Your task to perform on an android device: Go to display settings Image 0: 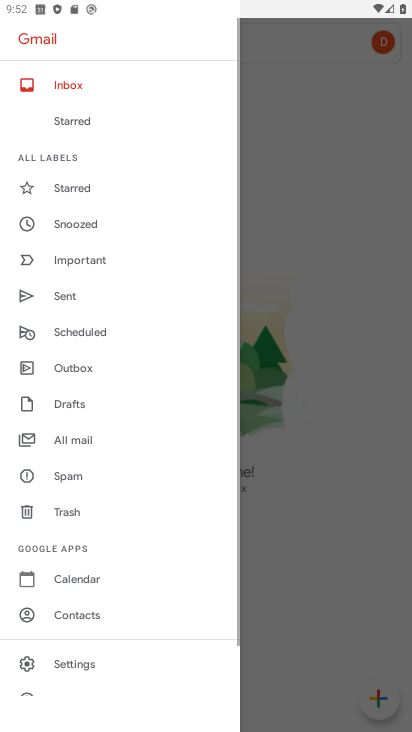
Step 0: drag from (141, 672) to (200, 320)
Your task to perform on an android device: Go to display settings Image 1: 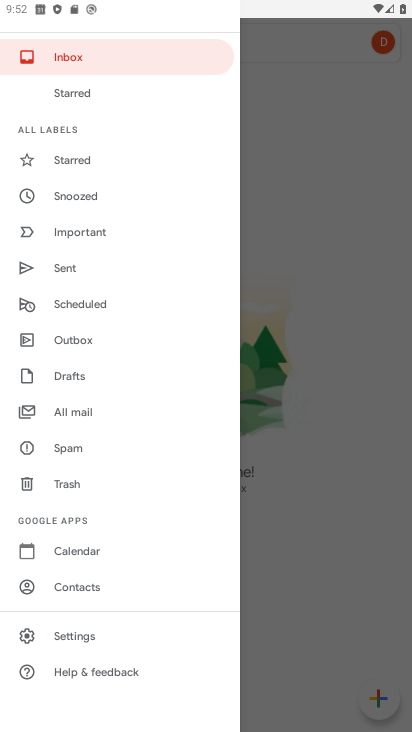
Step 1: press home button
Your task to perform on an android device: Go to display settings Image 2: 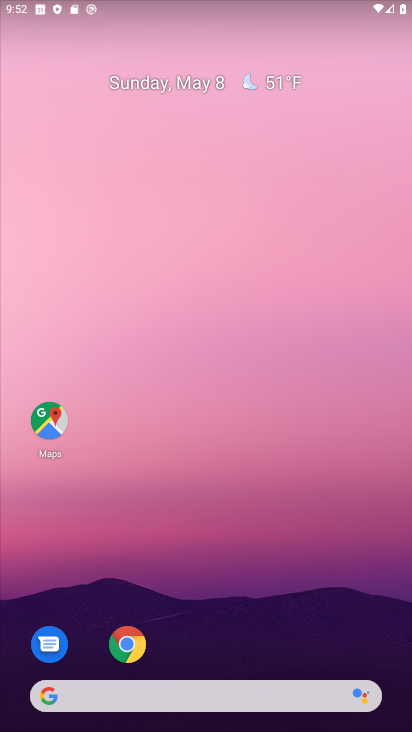
Step 2: drag from (193, 639) to (228, 319)
Your task to perform on an android device: Go to display settings Image 3: 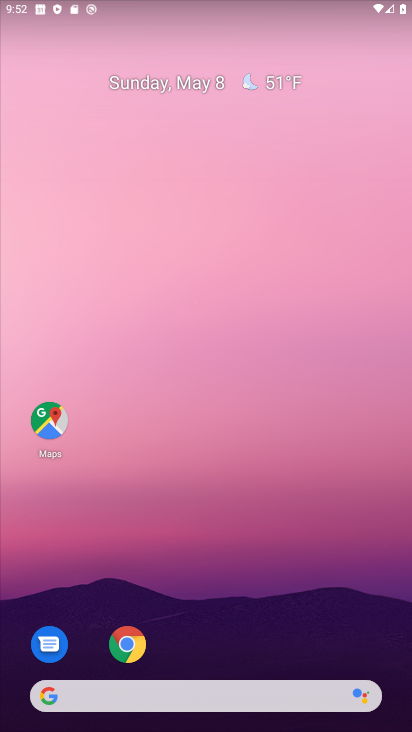
Step 3: drag from (186, 646) to (326, 161)
Your task to perform on an android device: Go to display settings Image 4: 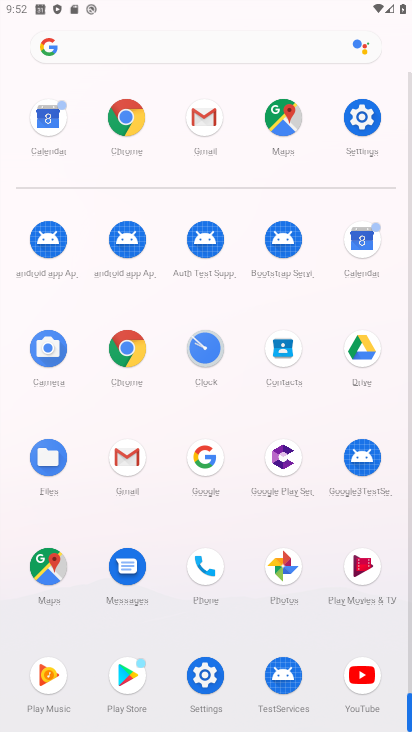
Step 4: click (359, 127)
Your task to perform on an android device: Go to display settings Image 5: 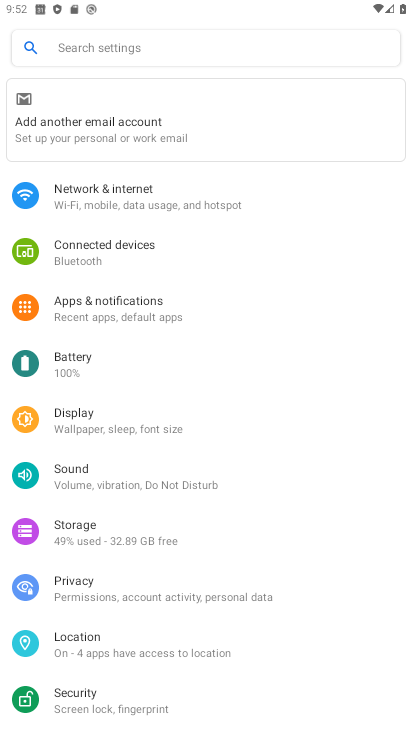
Step 5: click (86, 422)
Your task to perform on an android device: Go to display settings Image 6: 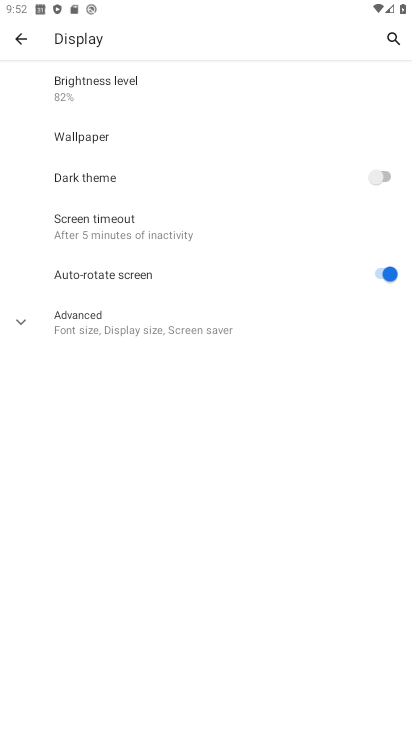
Step 6: task complete